Your task to perform on an android device: turn off sleep mode Image 0: 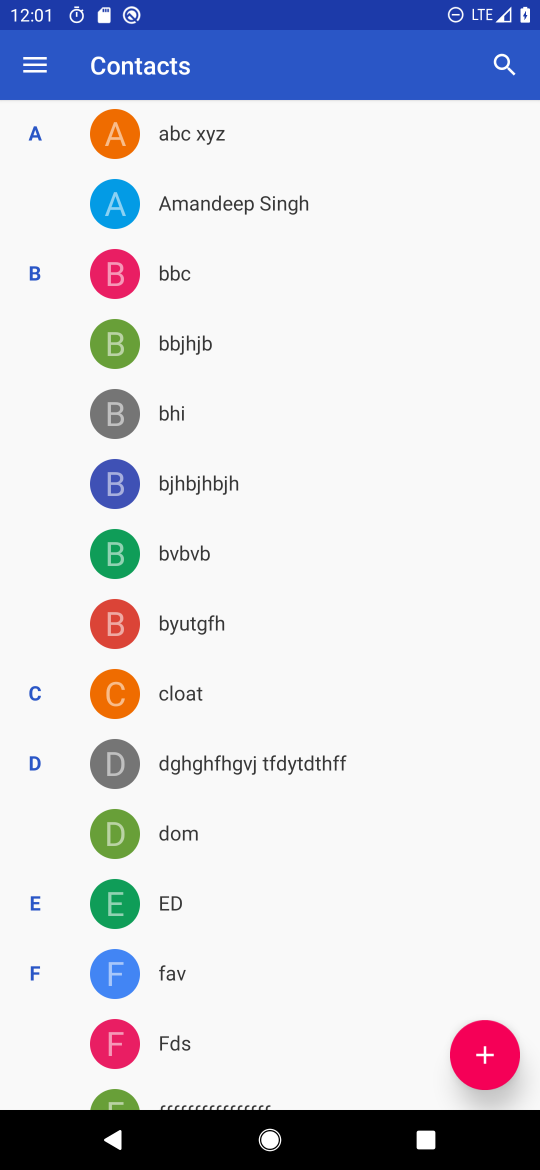
Step 0: press home button
Your task to perform on an android device: turn off sleep mode Image 1: 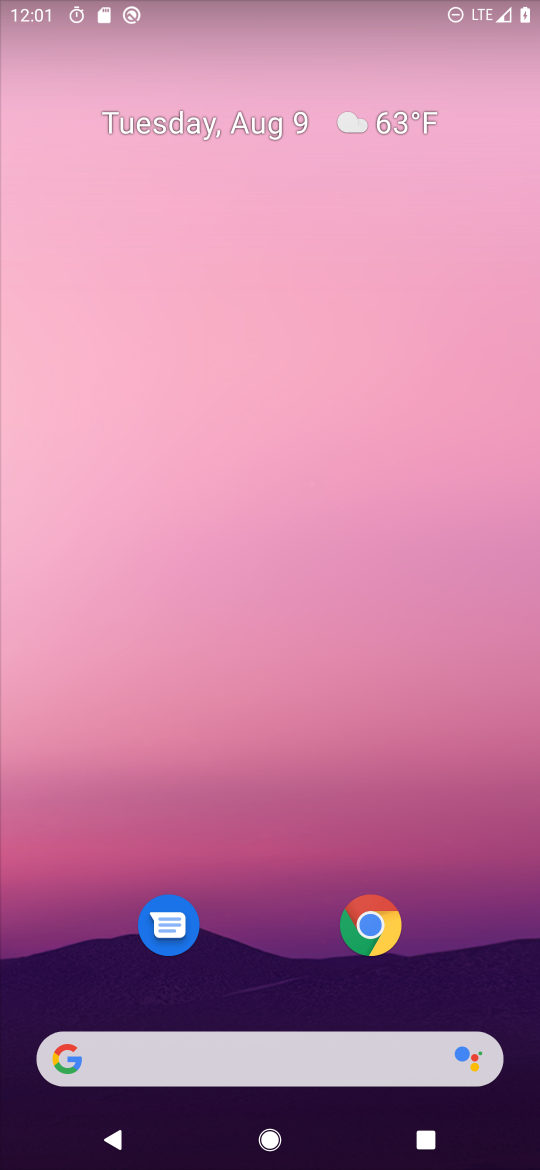
Step 1: drag from (286, 948) to (363, 150)
Your task to perform on an android device: turn off sleep mode Image 2: 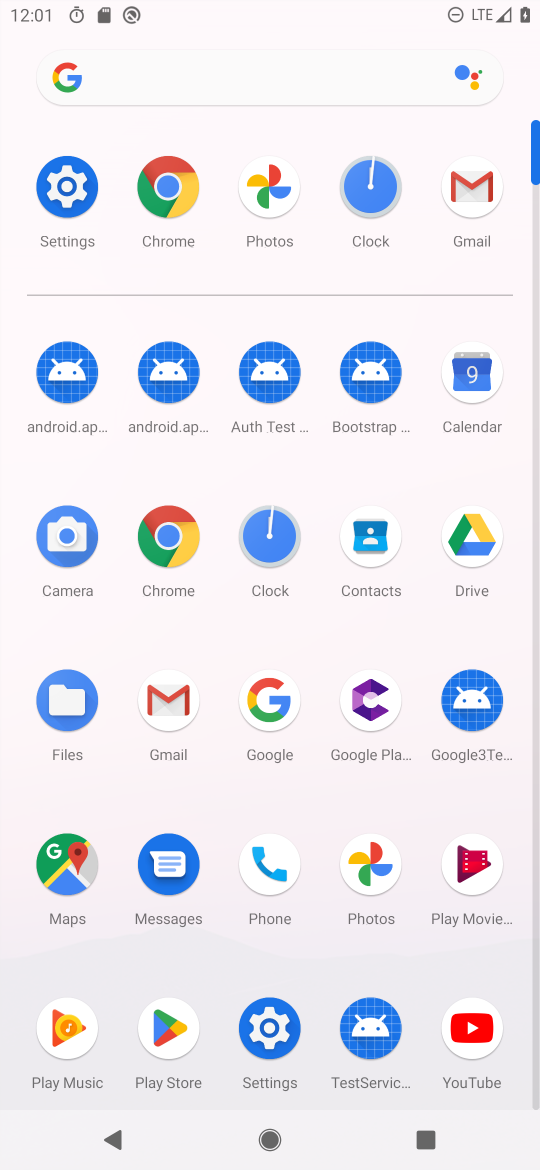
Step 2: click (63, 167)
Your task to perform on an android device: turn off sleep mode Image 3: 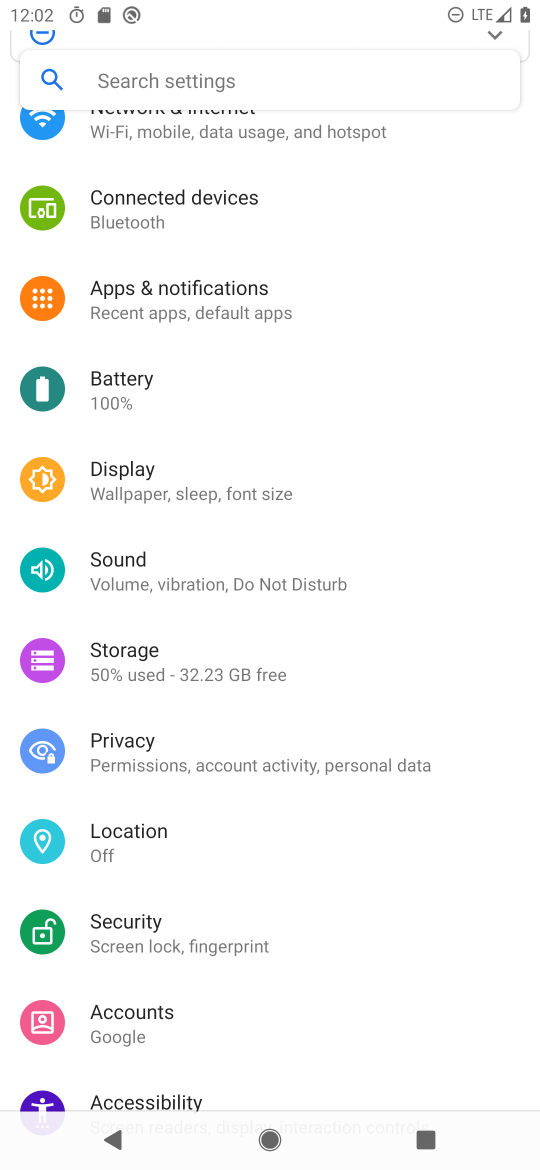
Step 3: click (138, 496)
Your task to perform on an android device: turn off sleep mode Image 4: 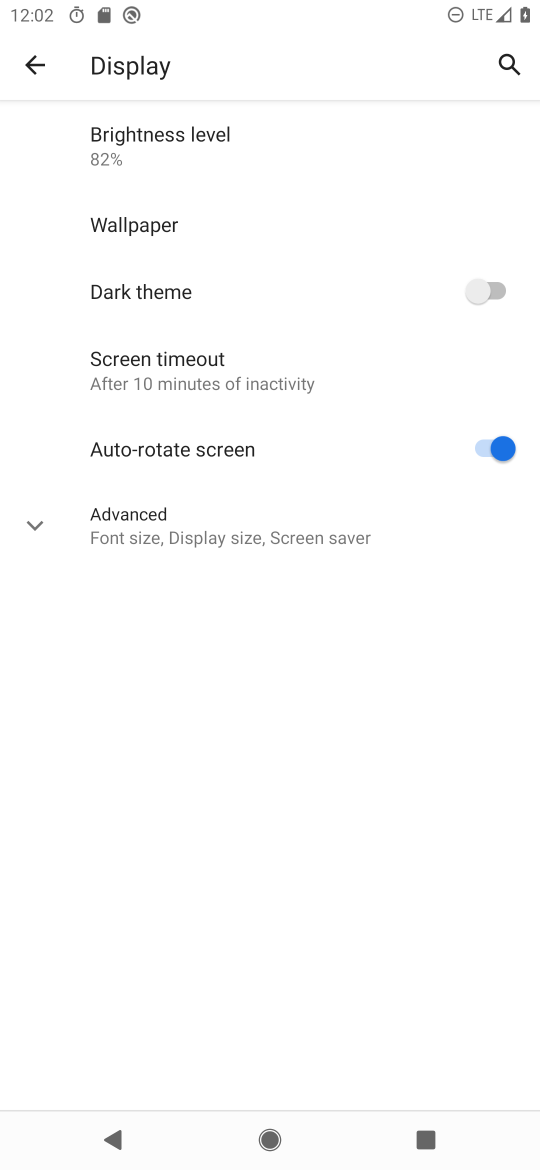
Step 4: click (239, 391)
Your task to perform on an android device: turn off sleep mode Image 5: 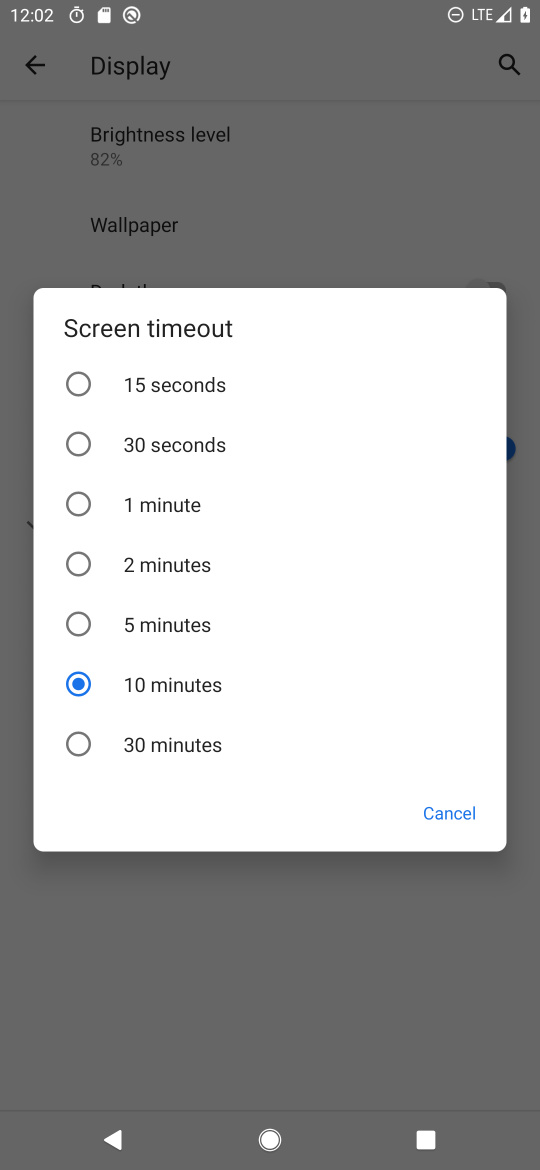
Step 5: task complete